Your task to perform on an android device: Open battery settings Image 0: 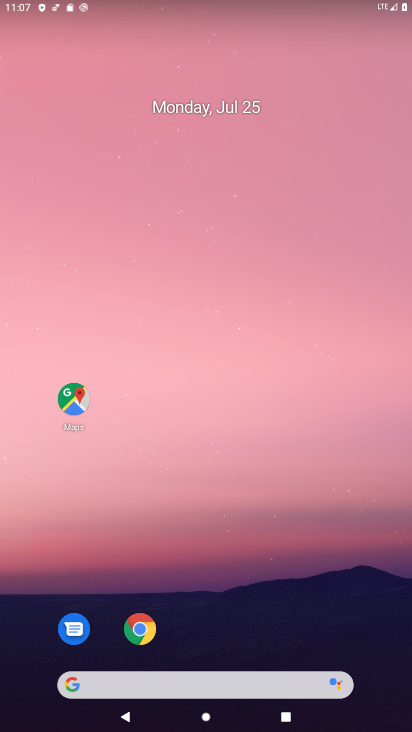
Step 0: drag from (205, 616) to (289, 177)
Your task to perform on an android device: Open battery settings Image 1: 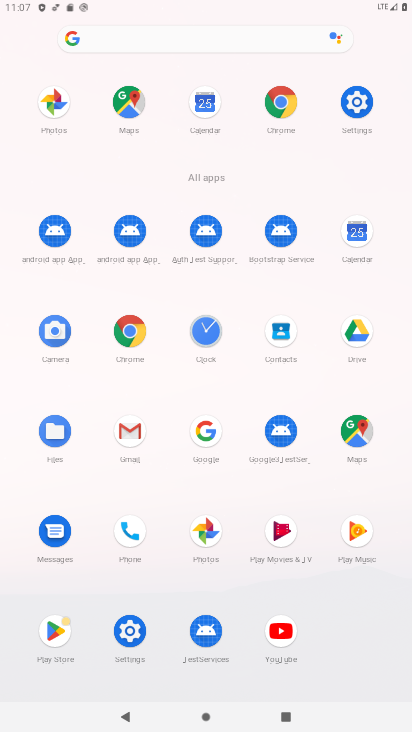
Step 1: click (354, 117)
Your task to perform on an android device: Open battery settings Image 2: 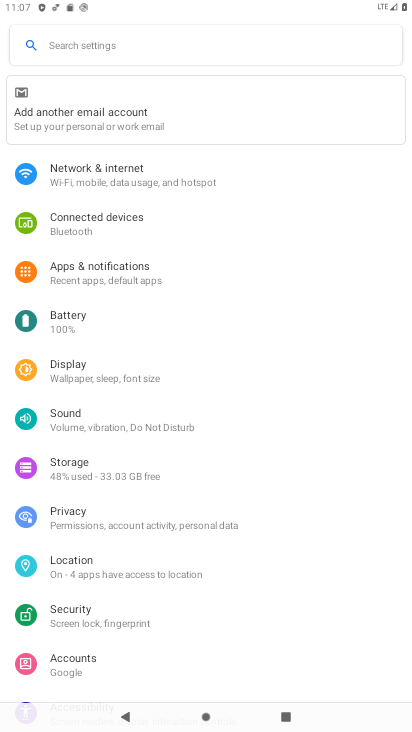
Step 2: click (101, 321)
Your task to perform on an android device: Open battery settings Image 3: 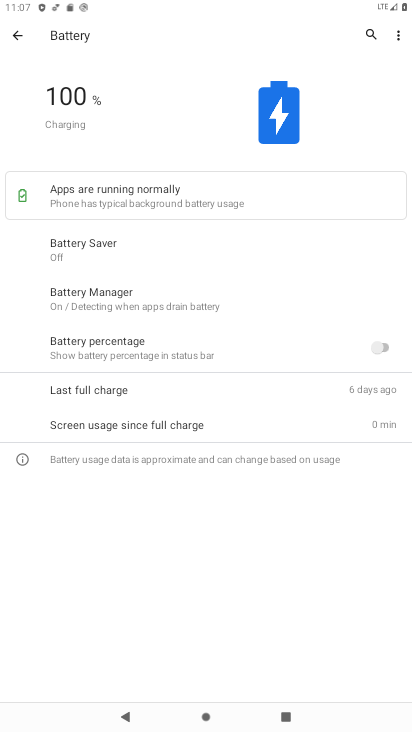
Step 3: task complete